Your task to perform on an android device: Go to display settings Image 0: 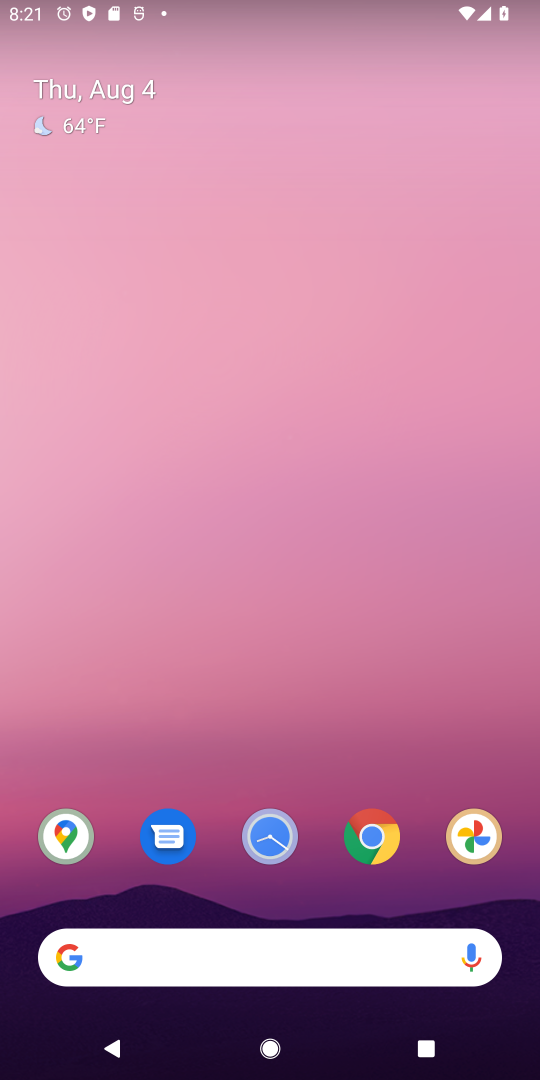
Step 0: drag from (219, 709) to (170, 18)
Your task to perform on an android device: Go to display settings Image 1: 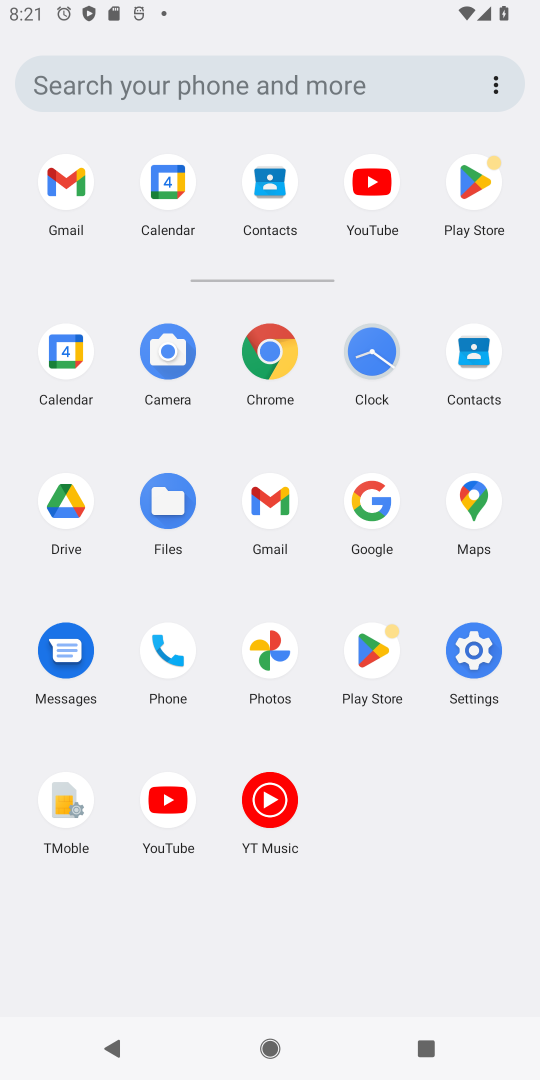
Step 1: click (468, 645)
Your task to perform on an android device: Go to display settings Image 2: 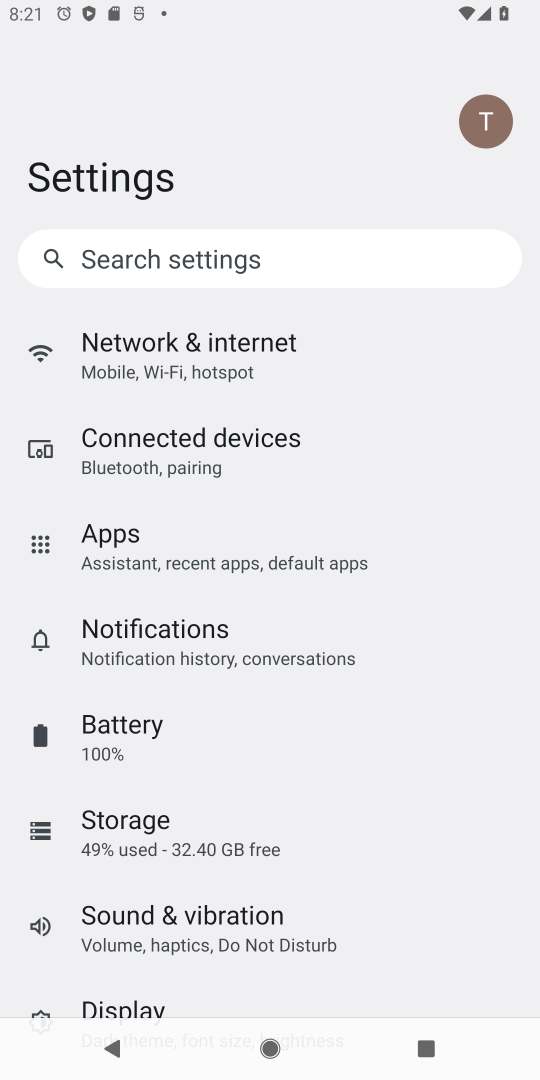
Step 2: drag from (197, 846) to (209, 110)
Your task to perform on an android device: Go to display settings Image 3: 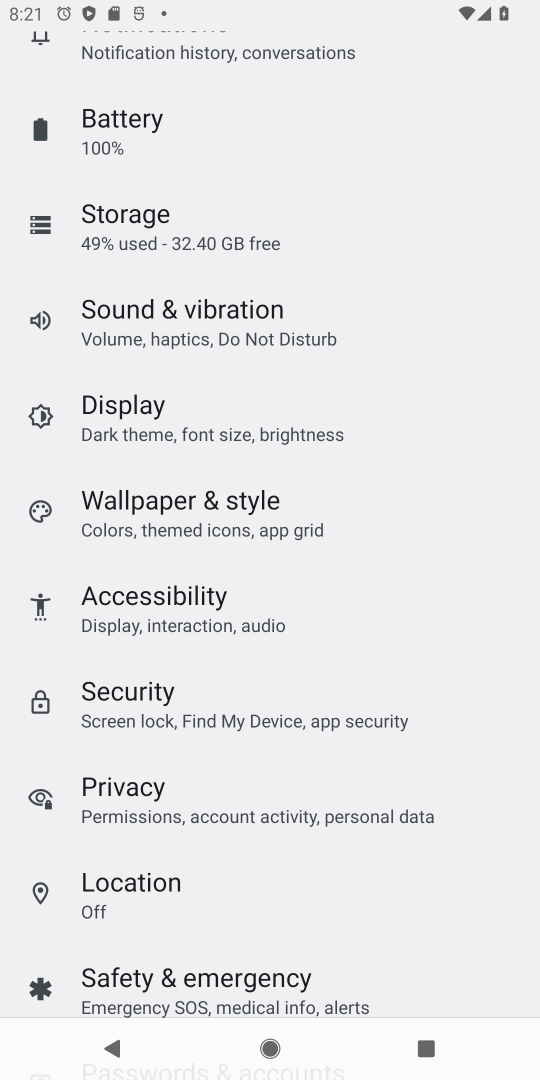
Step 3: click (146, 418)
Your task to perform on an android device: Go to display settings Image 4: 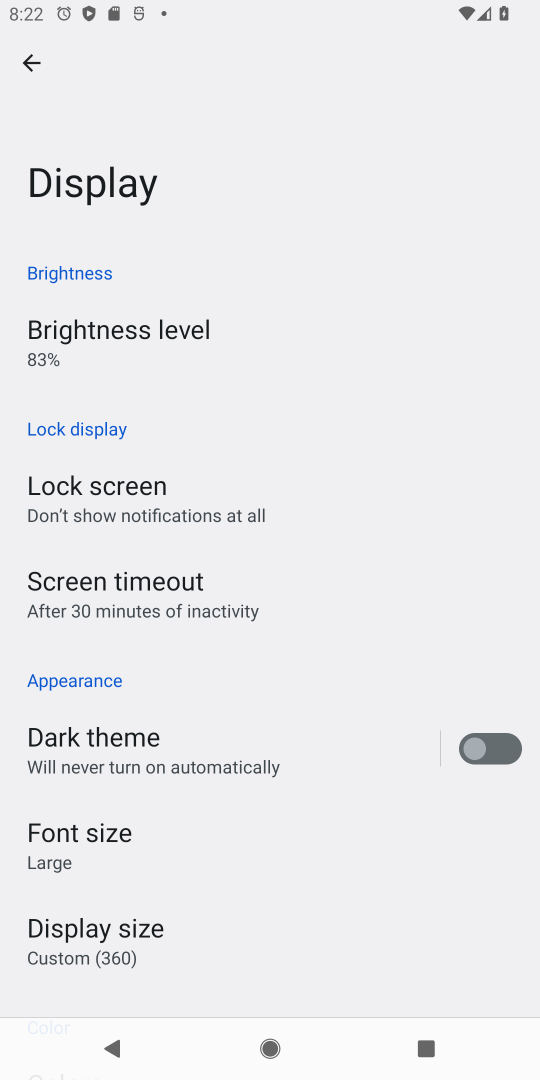
Step 4: task complete